Your task to perform on an android device: Open settings on Google Maps Image 0: 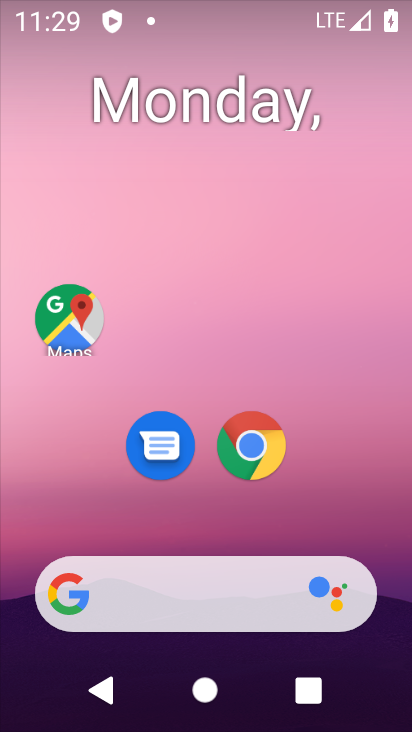
Step 0: drag from (134, 551) to (219, 186)
Your task to perform on an android device: Open settings on Google Maps Image 1: 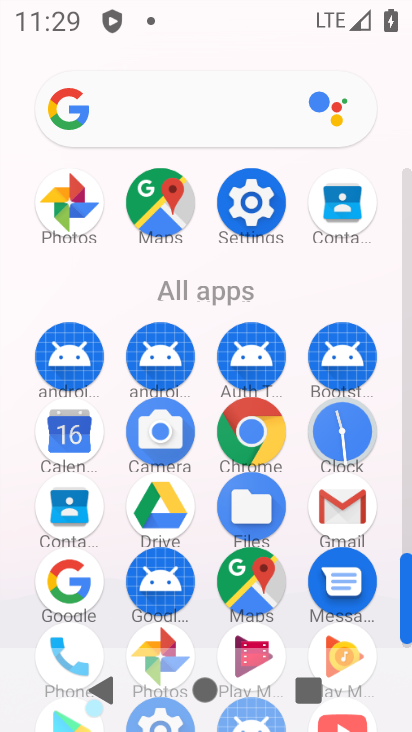
Step 1: click (212, 599)
Your task to perform on an android device: Open settings on Google Maps Image 2: 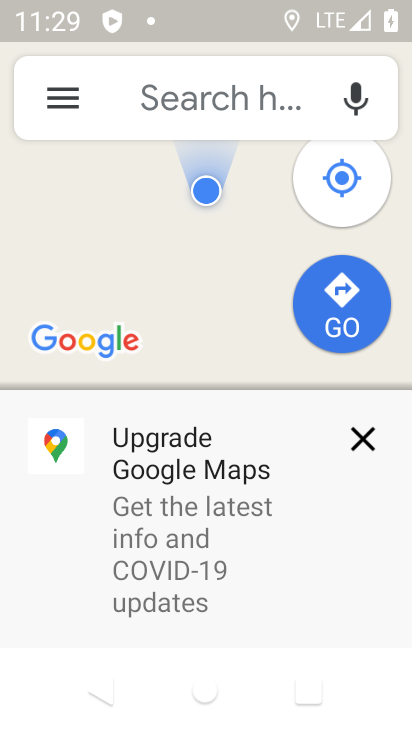
Step 2: click (371, 446)
Your task to perform on an android device: Open settings on Google Maps Image 3: 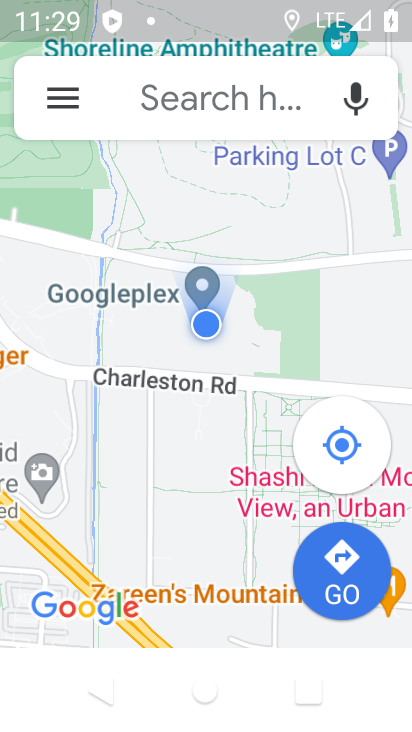
Step 3: click (72, 114)
Your task to perform on an android device: Open settings on Google Maps Image 4: 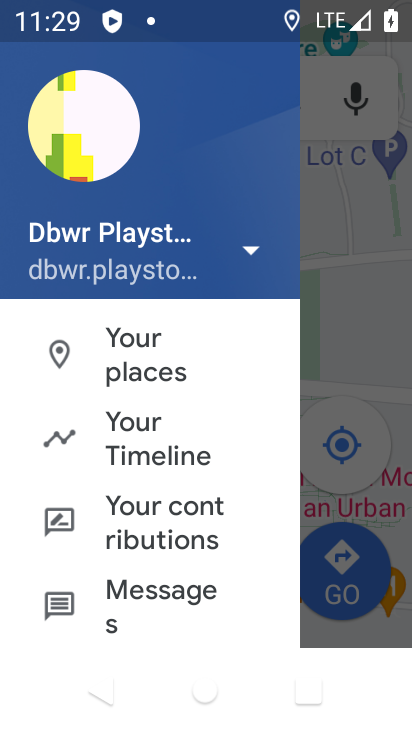
Step 4: drag from (123, 537) to (230, 255)
Your task to perform on an android device: Open settings on Google Maps Image 5: 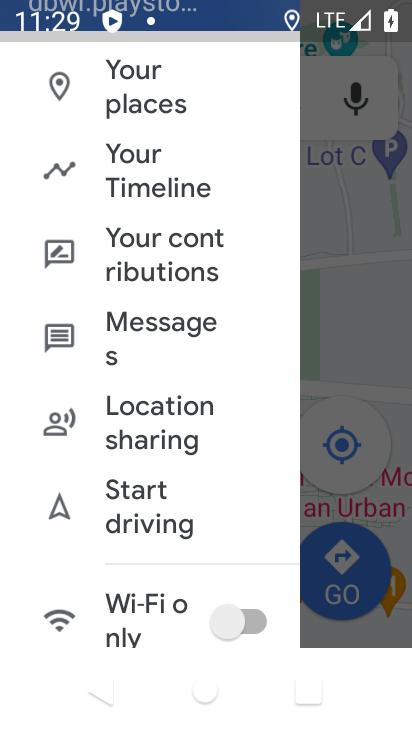
Step 5: drag from (126, 587) to (221, 249)
Your task to perform on an android device: Open settings on Google Maps Image 6: 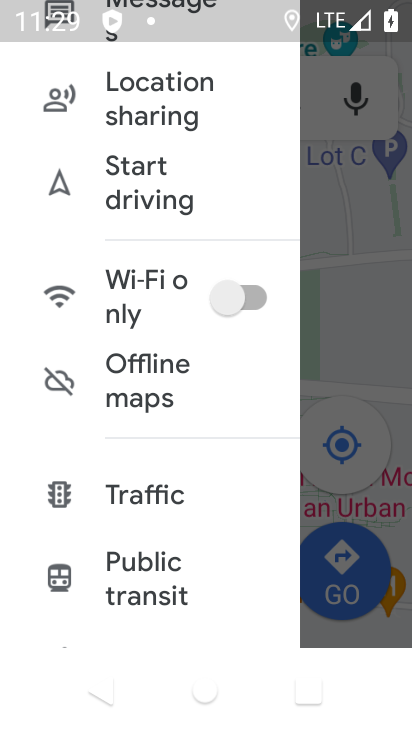
Step 6: drag from (118, 532) to (203, 260)
Your task to perform on an android device: Open settings on Google Maps Image 7: 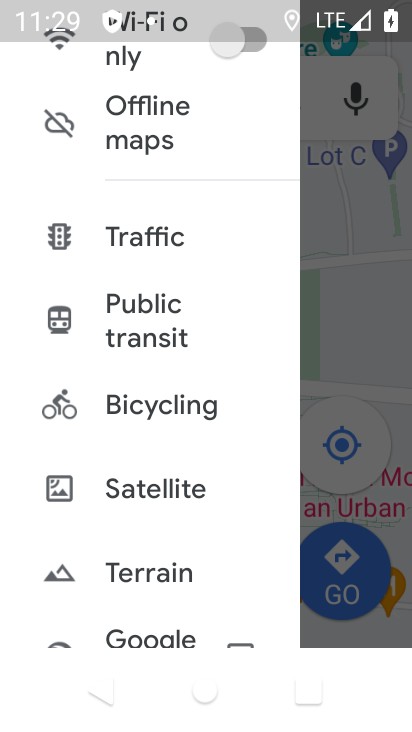
Step 7: drag from (140, 574) to (225, 156)
Your task to perform on an android device: Open settings on Google Maps Image 8: 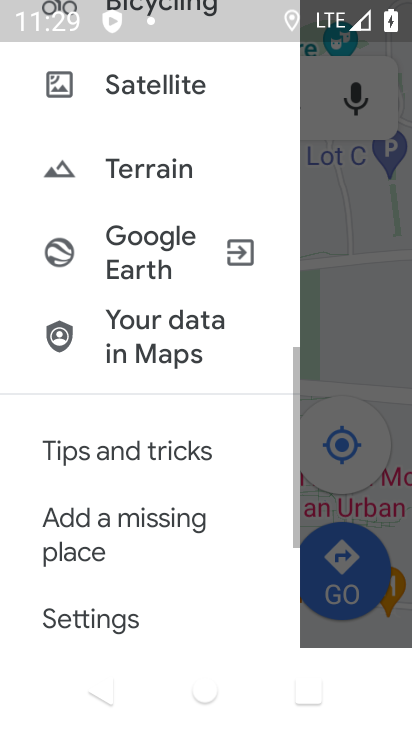
Step 8: drag from (111, 624) to (215, 215)
Your task to perform on an android device: Open settings on Google Maps Image 9: 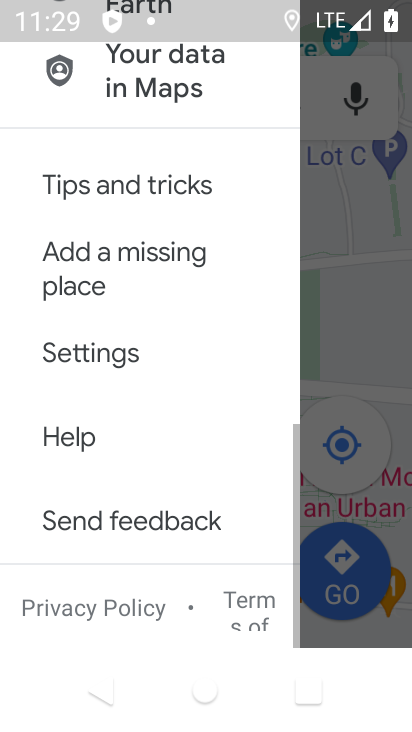
Step 9: click (150, 360)
Your task to perform on an android device: Open settings on Google Maps Image 10: 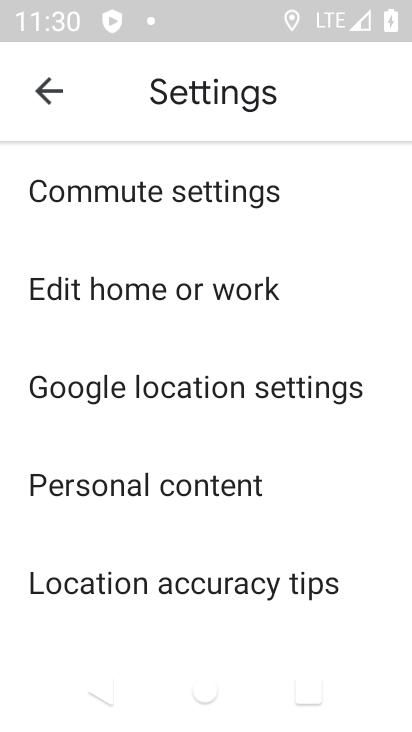
Step 10: task complete